Your task to perform on an android device: open chrome privacy settings Image 0: 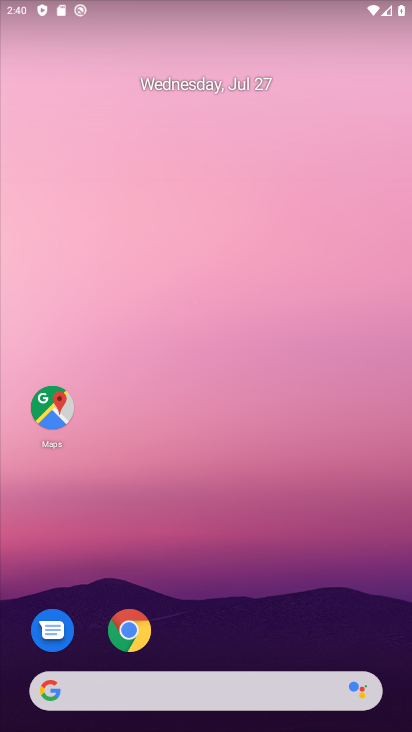
Step 0: drag from (251, 629) to (248, 127)
Your task to perform on an android device: open chrome privacy settings Image 1: 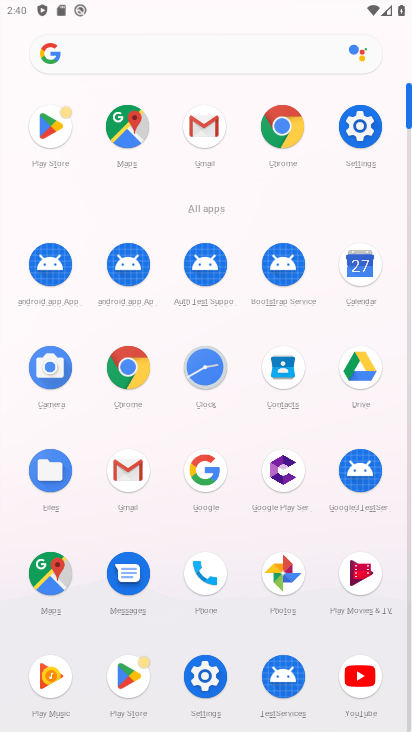
Step 1: click (276, 126)
Your task to perform on an android device: open chrome privacy settings Image 2: 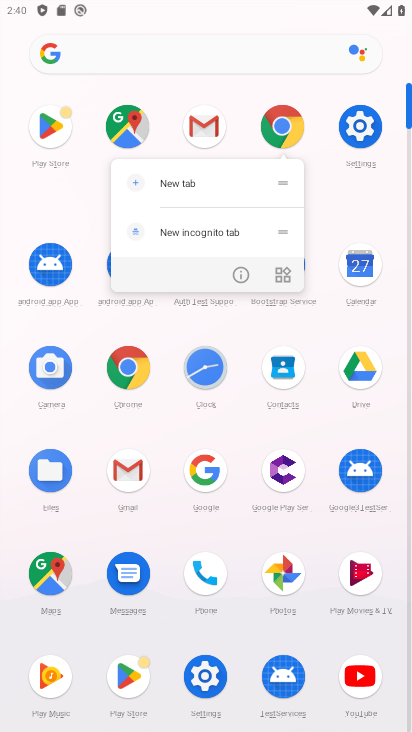
Step 2: click (276, 126)
Your task to perform on an android device: open chrome privacy settings Image 3: 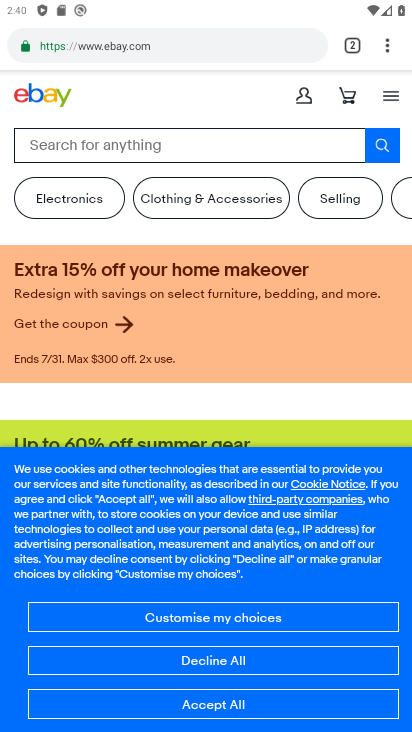
Step 3: drag from (382, 53) to (220, 594)
Your task to perform on an android device: open chrome privacy settings Image 4: 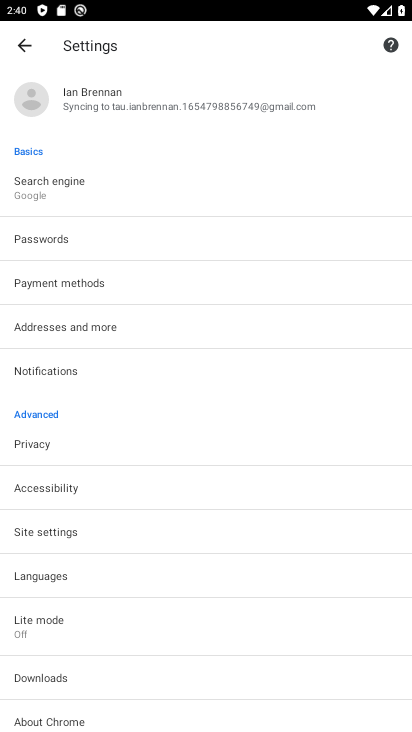
Step 4: click (27, 445)
Your task to perform on an android device: open chrome privacy settings Image 5: 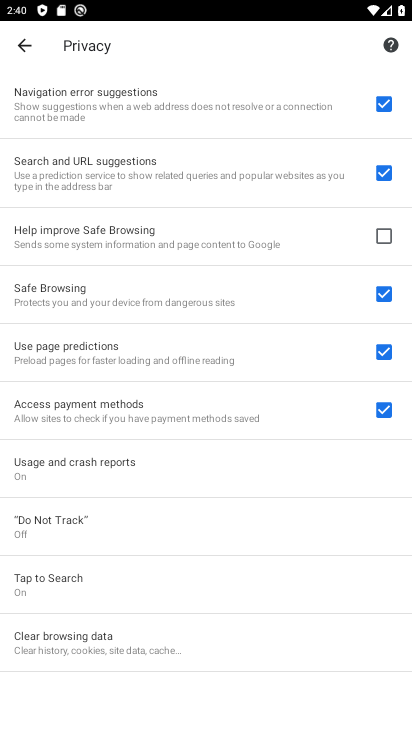
Step 5: task complete